Your task to perform on an android device: Open Youtube and go to "Your channel" Image 0: 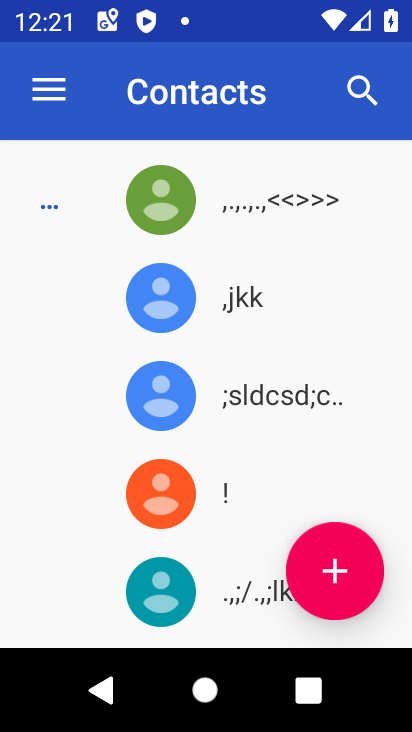
Step 0: press home button
Your task to perform on an android device: Open Youtube and go to "Your channel" Image 1: 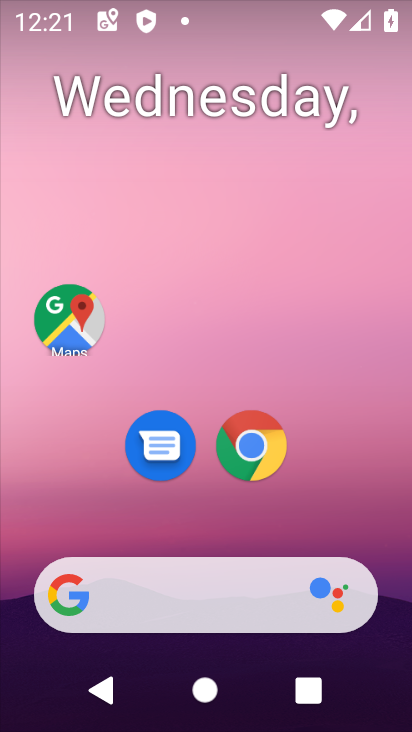
Step 1: drag from (330, 484) to (402, 7)
Your task to perform on an android device: Open Youtube and go to "Your channel" Image 2: 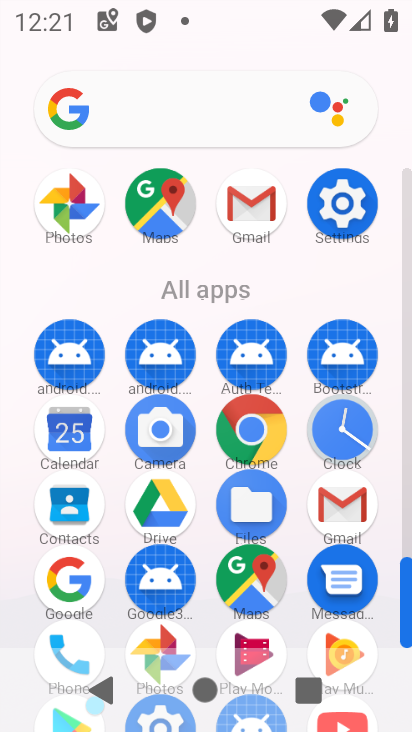
Step 2: drag from (272, 589) to (317, 98)
Your task to perform on an android device: Open Youtube and go to "Your channel" Image 3: 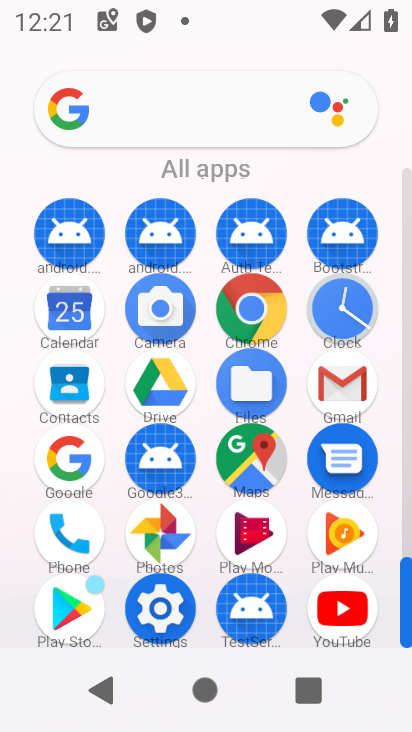
Step 3: click (329, 620)
Your task to perform on an android device: Open Youtube and go to "Your channel" Image 4: 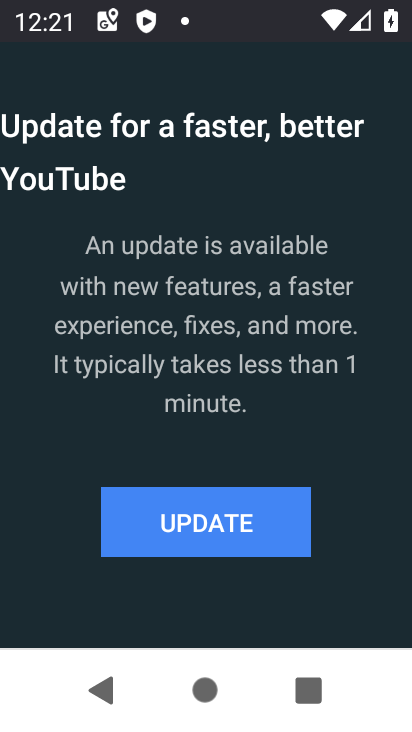
Step 4: click (212, 540)
Your task to perform on an android device: Open Youtube and go to "Your channel" Image 5: 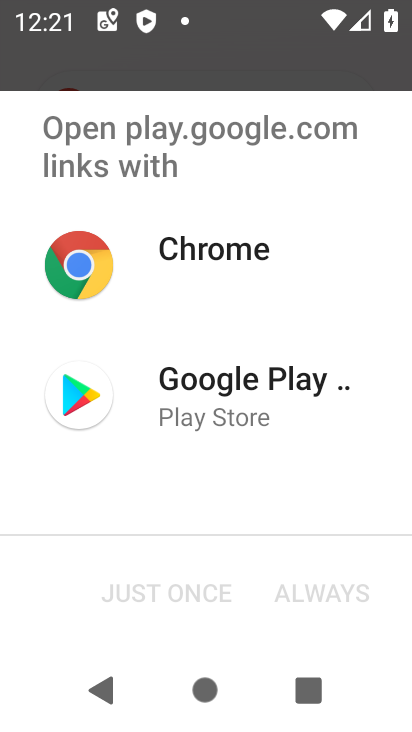
Step 5: click (200, 409)
Your task to perform on an android device: Open Youtube and go to "Your channel" Image 6: 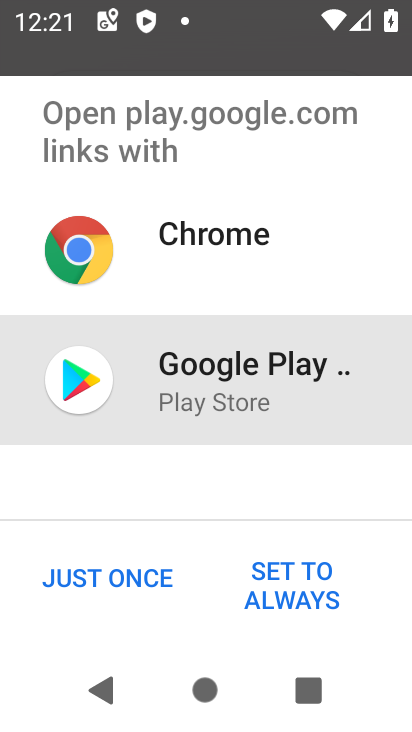
Step 6: click (131, 577)
Your task to perform on an android device: Open Youtube and go to "Your channel" Image 7: 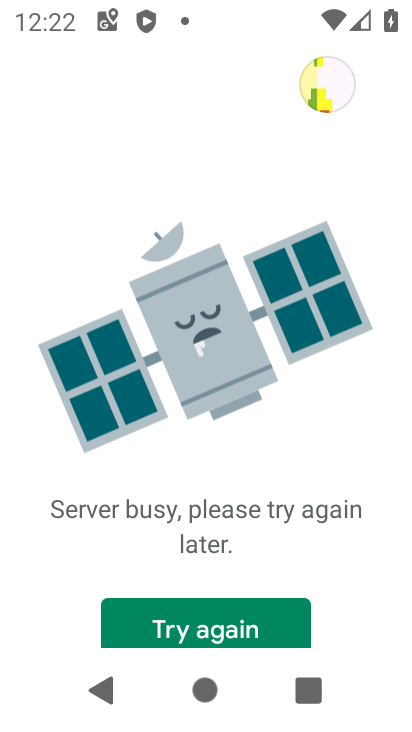
Step 7: click (153, 626)
Your task to perform on an android device: Open Youtube and go to "Your channel" Image 8: 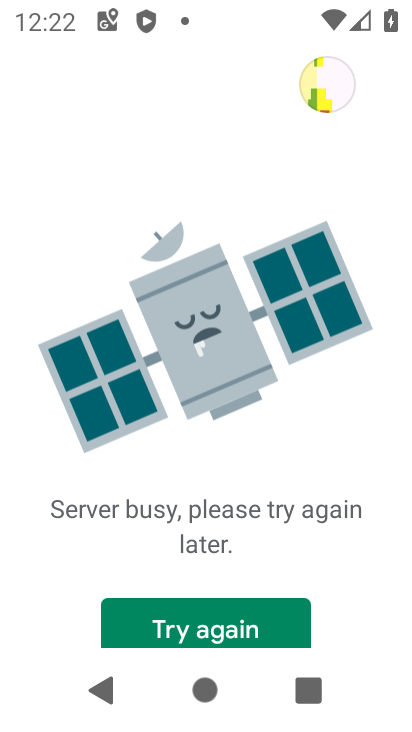
Step 8: task complete